Your task to perform on an android device: open a bookmark in the chrome app Image 0: 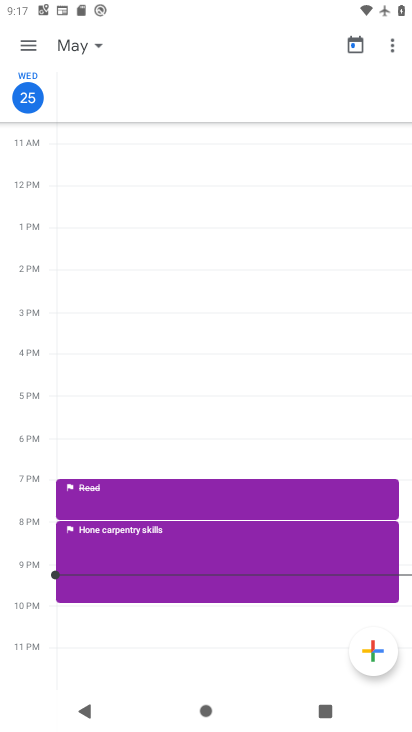
Step 0: press home button
Your task to perform on an android device: open a bookmark in the chrome app Image 1: 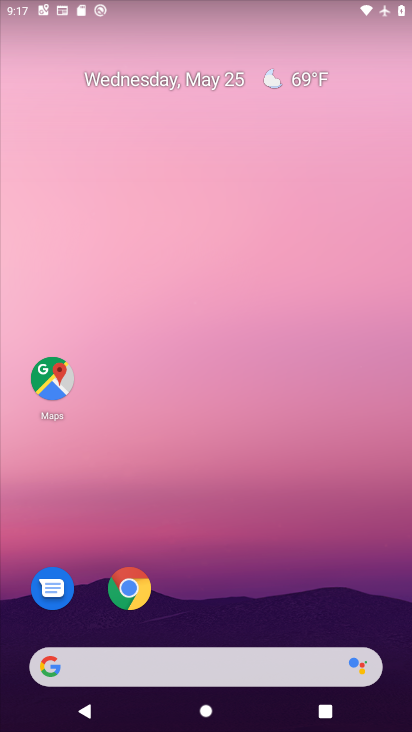
Step 1: drag from (384, 614) to (380, 185)
Your task to perform on an android device: open a bookmark in the chrome app Image 2: 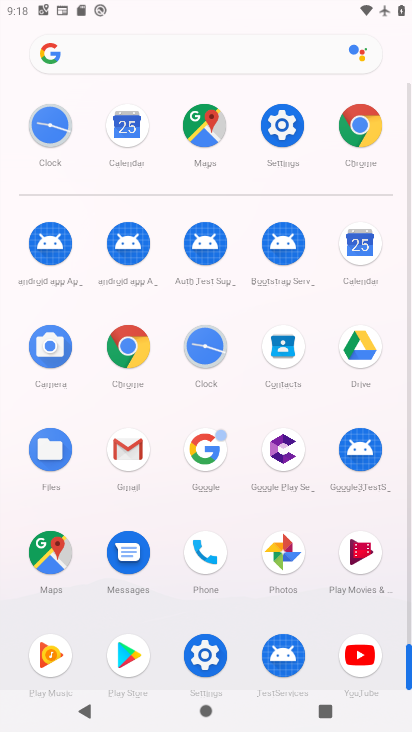
Step 2: click (361, 129)
Your task to perform on an android device: open a bookmark in the chrome app Image 3: 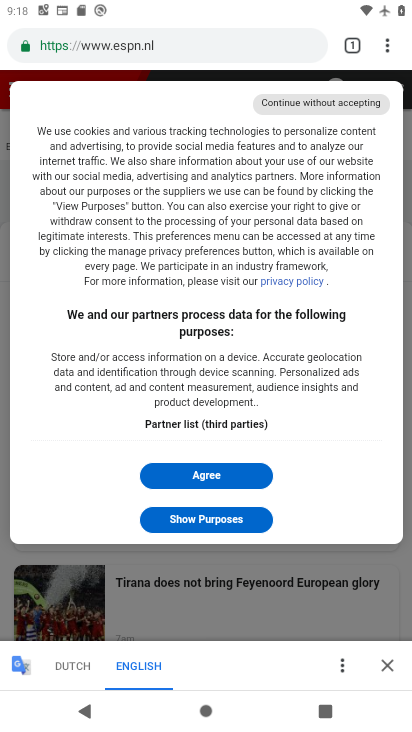
Step 3: click (388, 51)
Your task to perform on an android device: open a bookmark in the chrome app Image 4: 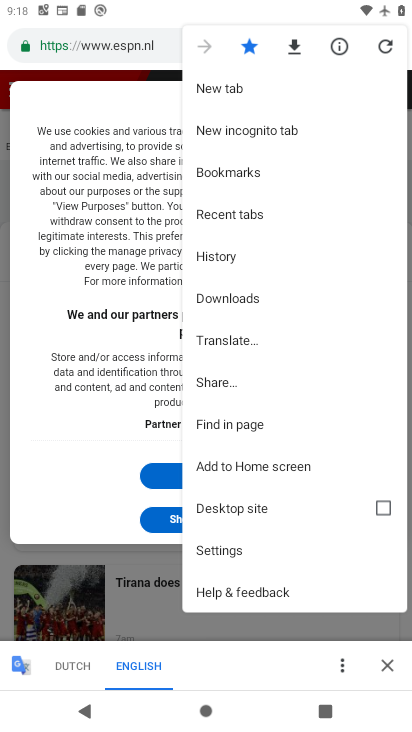
Step 4: click (256, 176)
Your task to perform on an android device: open a bookmark in the chrome app Image 5: 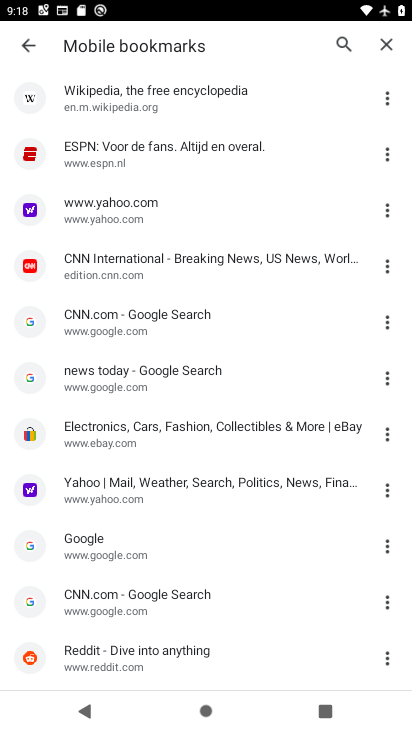
Step 5: click (150, 100)
Your task to perform on an android device: open a bookmark in the chrome app Image 6: 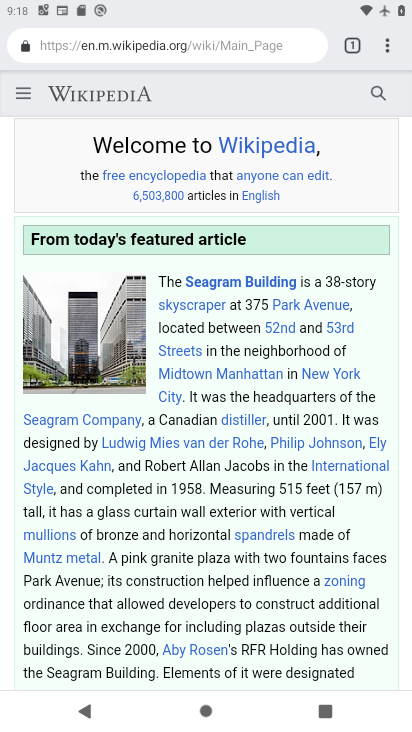
Step 6: task complete